Your task to perform on an android device: Show me productivity apps on the Play Store Image 0: 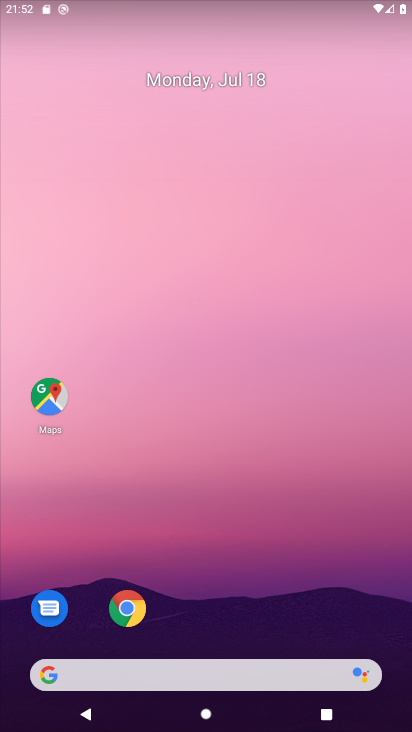
Step 0: drag from (192, 625) to (170, 145)
Your task to perform on an android device: Show me productivity apps on the Play Store Image 1: 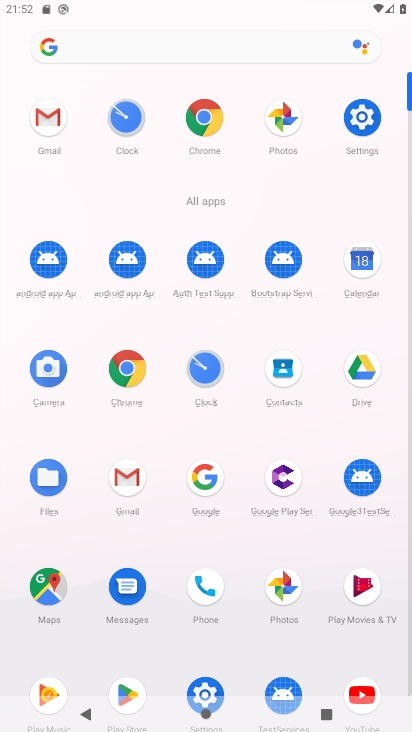
Step 1: click (128, 689)
Your task to perform on an android device: Show me productivity apps on the Play Store Image 2: 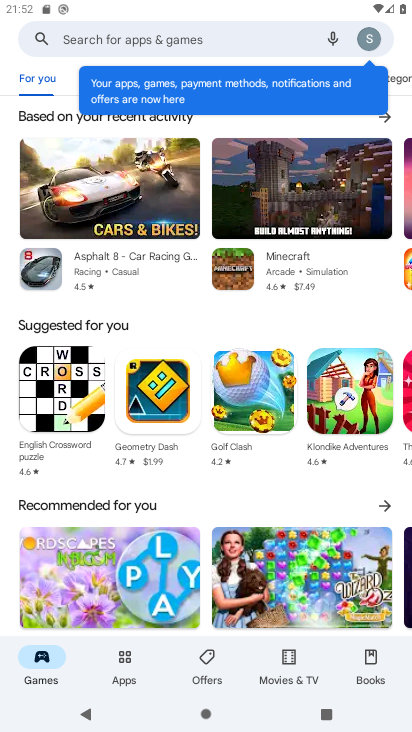
Step 2: click (129, 652)
Your task to perform on an android device: Show me productivity apps on the Play Store Image 3: 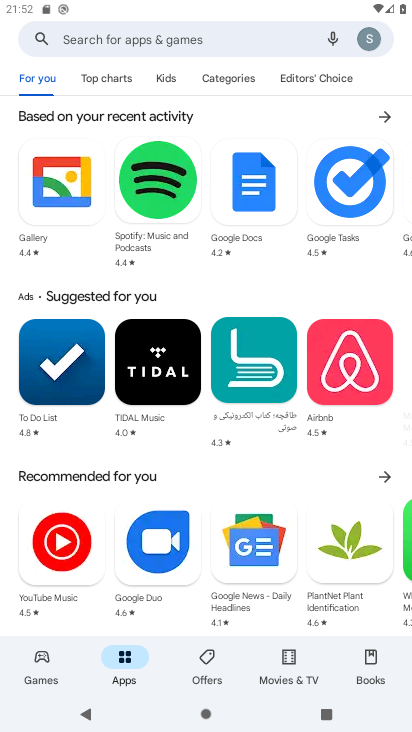
Step 3: click (238, 85)
Your task to perform on an android device: Show me productivity apps on the Play Store Image 4: 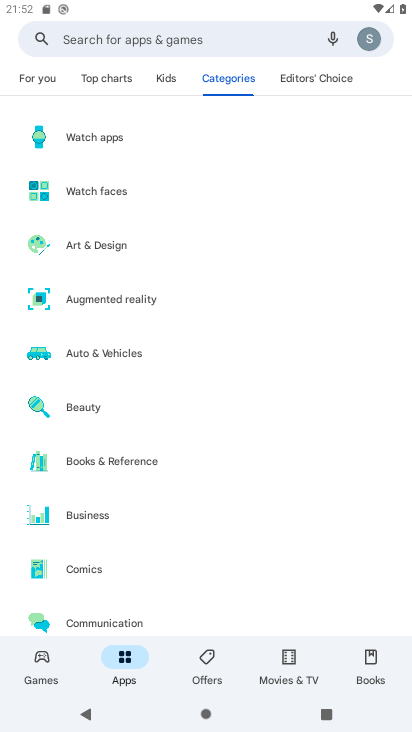
Step 4: drag from (196, 589) to (295, 77)
Your task to perform on an android device: Show me productivity apps on the Play Store Image 5: 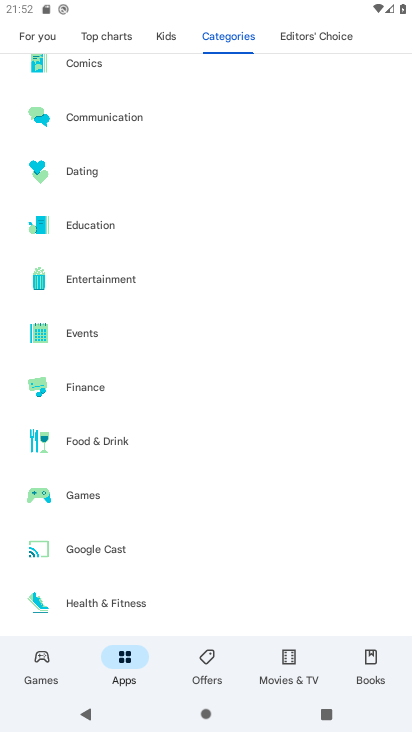
Step 5: drag from (197, 560) to (292, 99)
Your task to perform on an android device: Show me productivity apps on the Play Store Image 6: 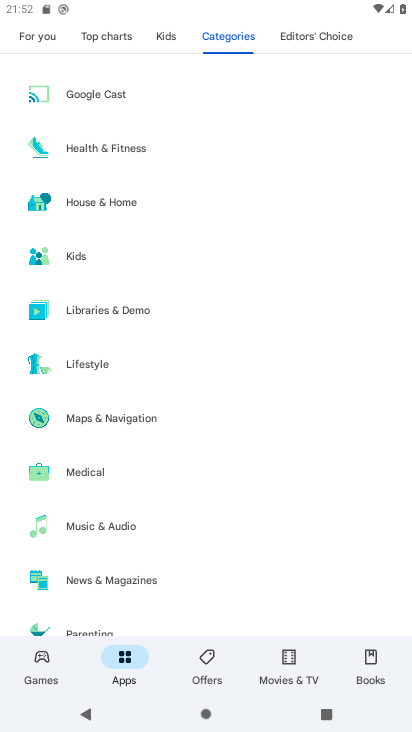
Step 6: drag from (202, 576) to (275, 102)
Your task to perform on an android device: Show me productivity apps on the Play Store Image 7: 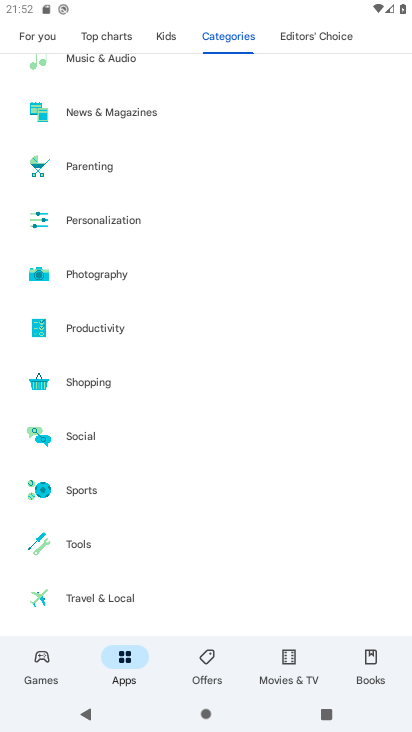
Step 7: click (128, 334)
Your task to perform on an android device: Show me productivity apps on the Play Store Image 8: 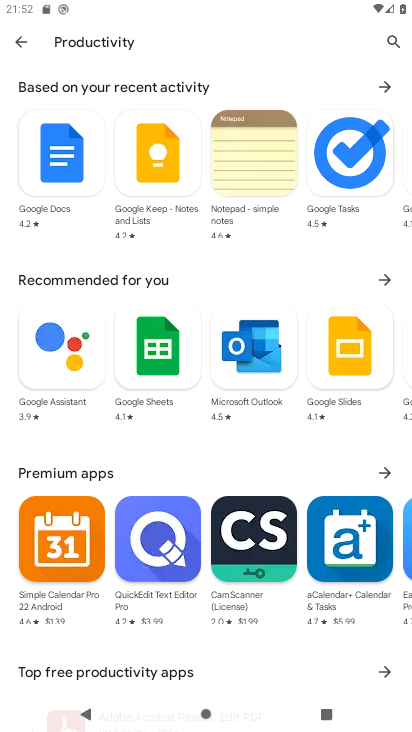
Step 8: task complete